Your task to perform on an android device: turn on bluetooth scan Image 0: 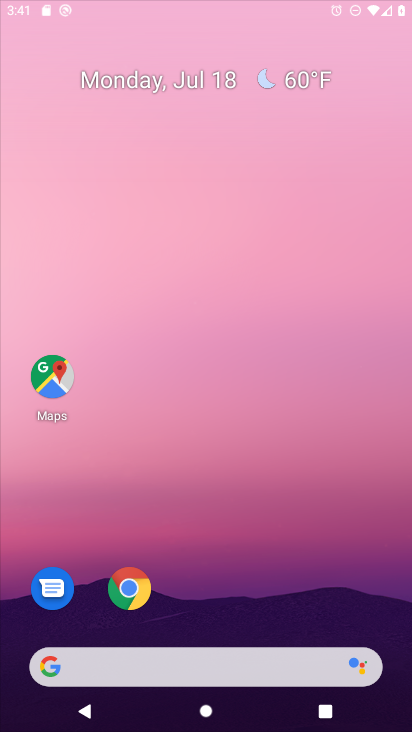
Step 0: press home button
Your task to perform on an android device: turn on bluetooth scan Image 1: 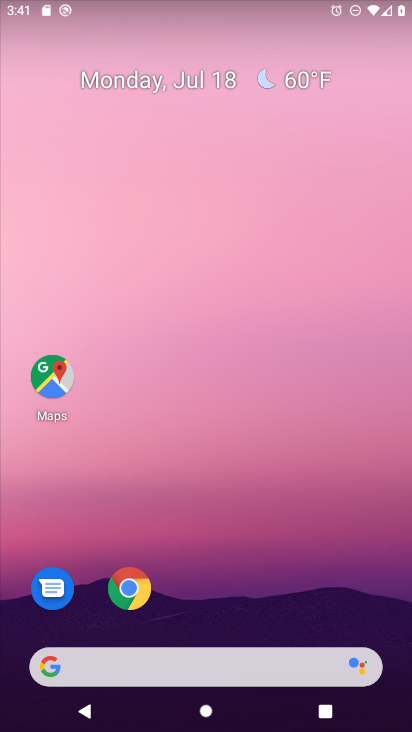
Step 1: drag from (189, 616) to (195, 22)
Your task to perform on an android device: turn on bluetooth scan Image 2: 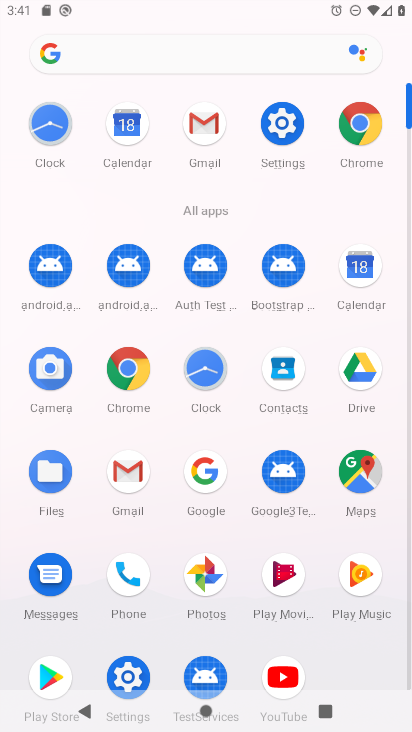
Step 2: click (277, 117)
Your task to perform on an android device: turn on bluetooth scan Image 3: 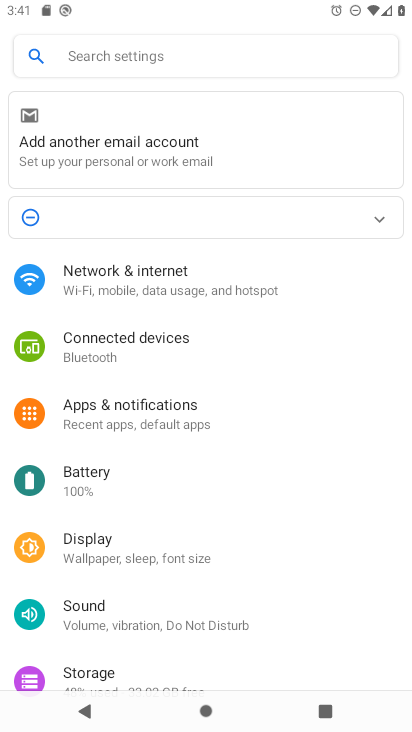
Step 3: drag from (138, 648) to (171, 179)
Your task to perform on an android device: turn on bluetooth scan Image 4: 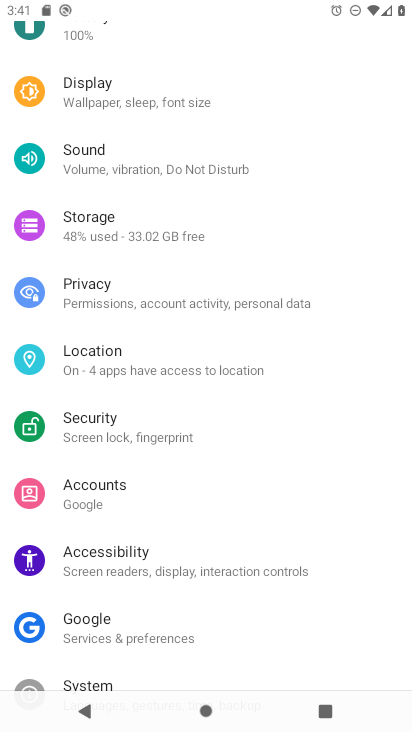
Step 4: click (134, 352)
Your task to perform on an android device: turn on bluetooth scan Image 5: 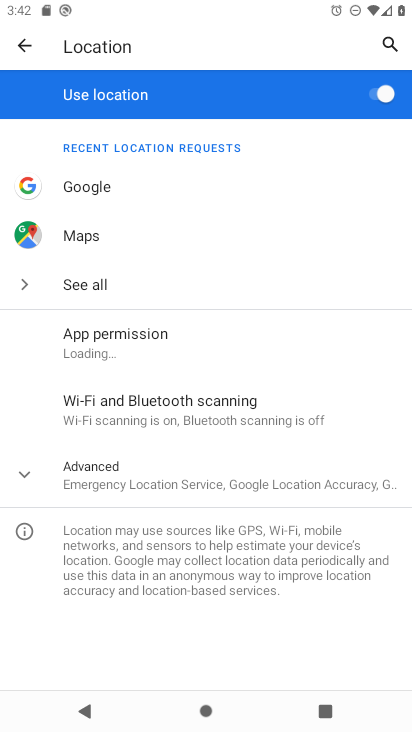
Step 5: click (143, 390)
Your task to perform on an android device: turn on bluetooth scan Image 6: 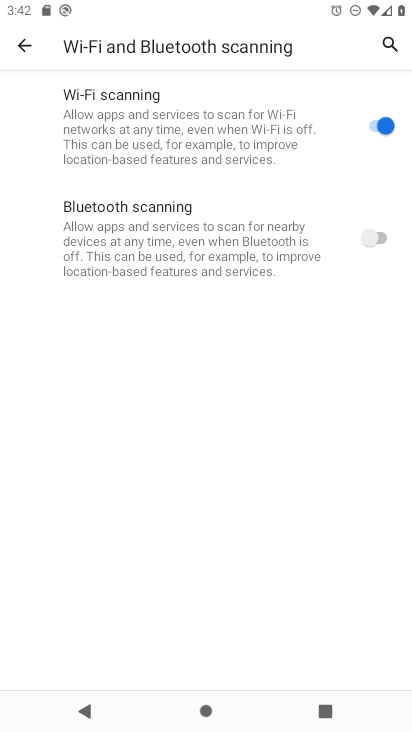
Step 6: click (381, 235)
Your task to perform on an android device: turn on bluetooth scan Image 7: 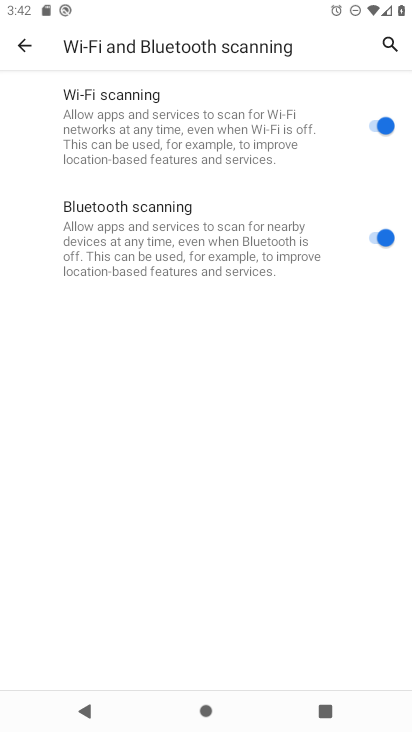
Step 7: task complete